Your task to perform on an android device: Open the Play Movies app and select the watchlist tab. Image 0: 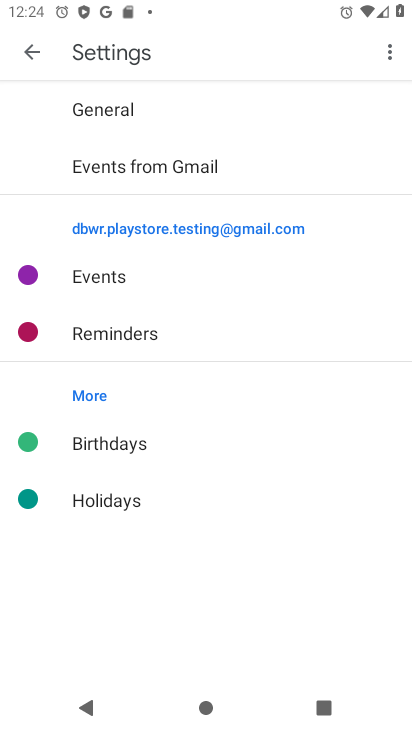
Step 0: press home button
Your task to perform on an android device: Open the Play Movies app and select the watchlist tab. Image 1: 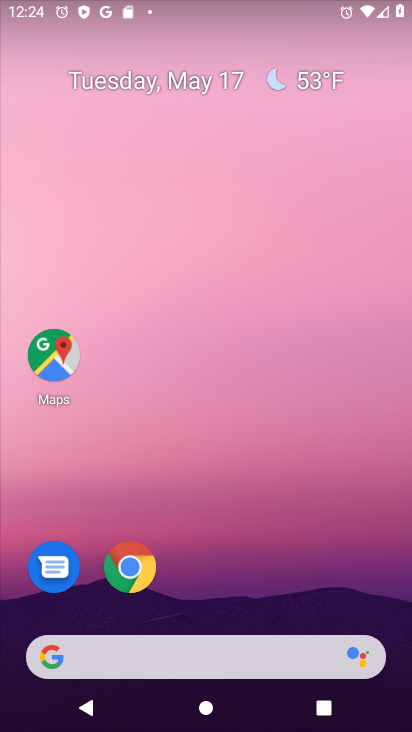
Step 1: drag from (378, 599) to (347, 94)
Your task to perform on an android device: Open the Play Movies app and select the watchlist tab. Image 2: 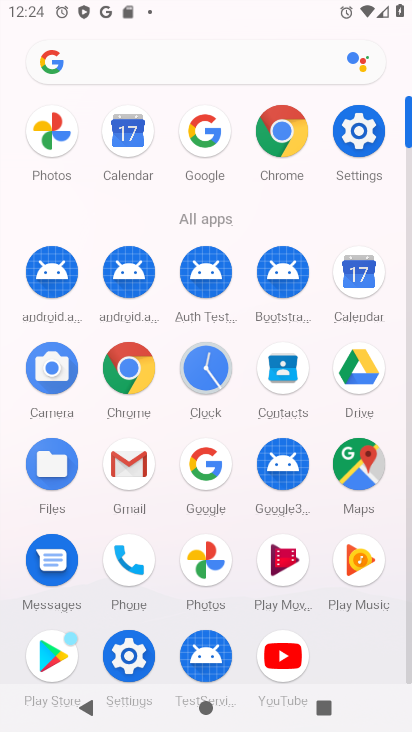
Step 2: click (278, 560)
Your task to perform on an android device: Open the Play Movies app and select the watchlist tab. Image 3: 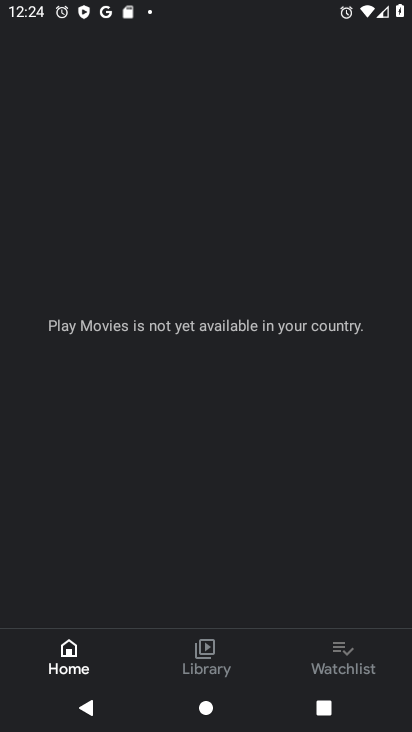
Step 3: click (356, 657)
Your task to perform on an android device: Open the Play Movies app and select the watchlist tab. Image 4: 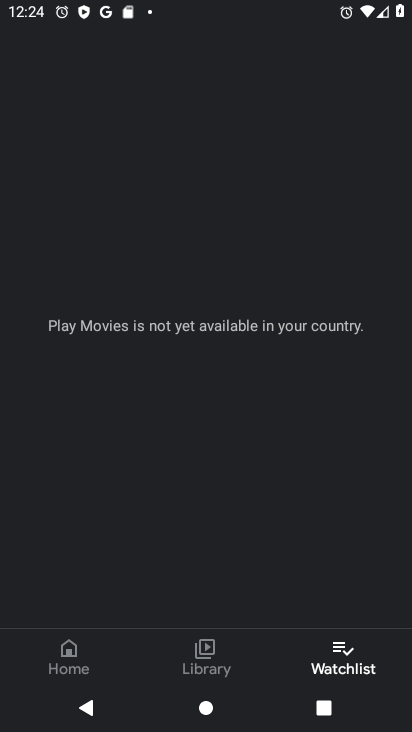
Step 4: task complete